Your task to perform on an android device: Go to settings Image 0: 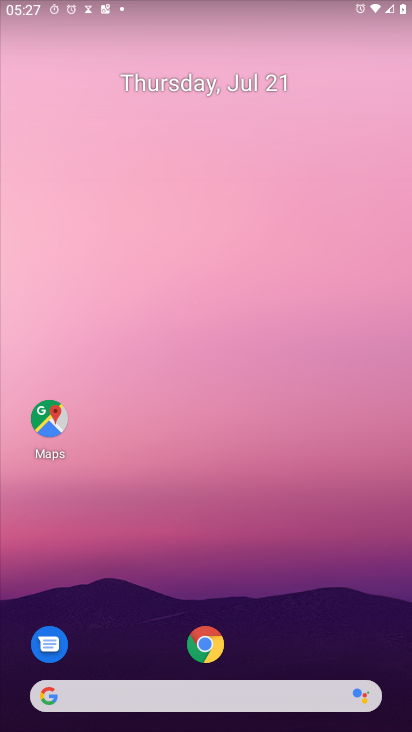
Step 0: press home button
Your task to perform on an android device: Go to settings Image 1: 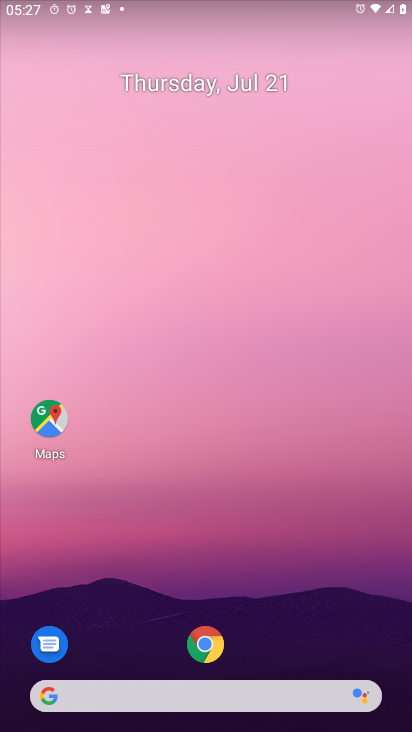
Step 1: drag from (296, 580) to (241, 5)
Your task to perform on an android device: Go to settings Image 2: 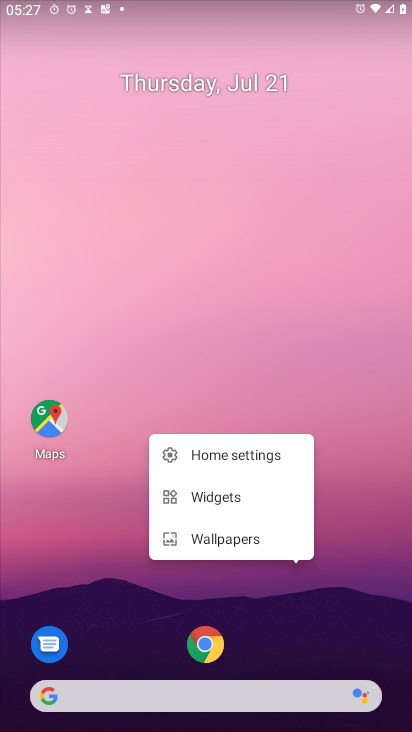
Step 2: drag from (349, 541) to (405, 338)
Your task to perform on an android device: Go to settings Image 3: 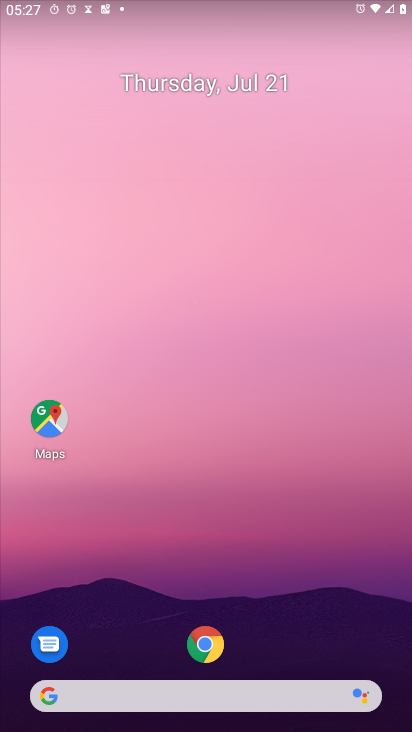
Step 3: drag from (246, 526) to (256, 729)
Your task to perform on an android device: Go to settings Image 4: 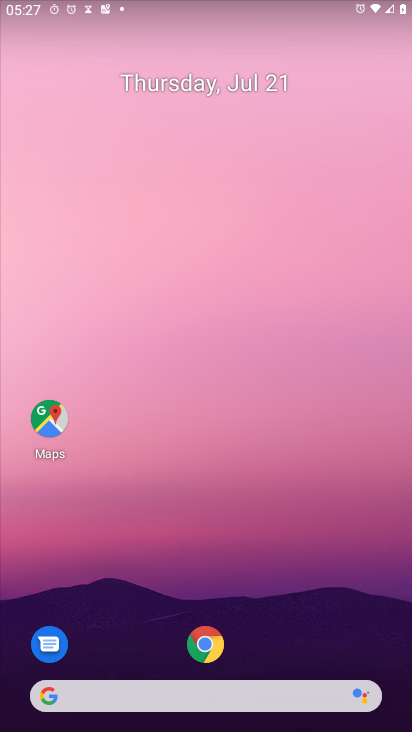
Step 4: drag from (235, 594) to (199, 28)
Your task to perform on an android device: Go to settings Image 5: 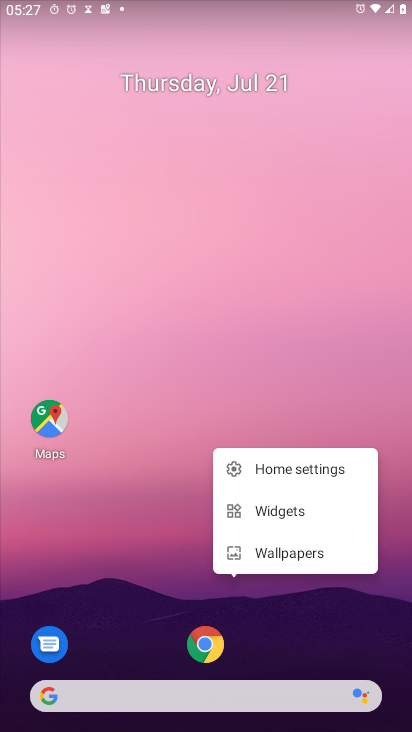
Step 5: drag from (161, 548) to (266, 8)
Your task to perform on an android device: Go to settings Image 6: 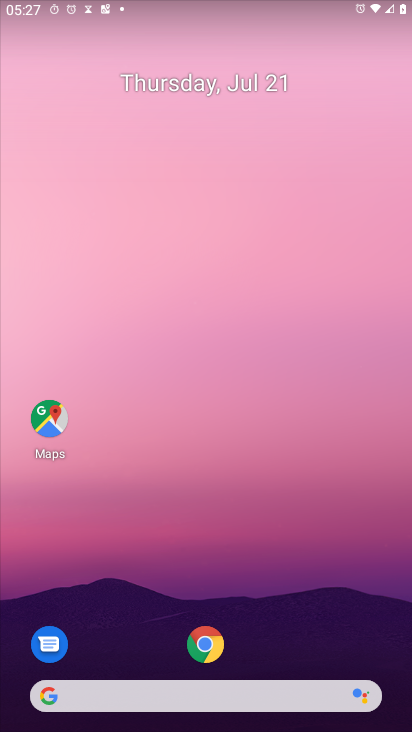
Step 6: drag from (256, 587) to (263, 75)
Your task to perform on an android device: Go to settings Image 7: 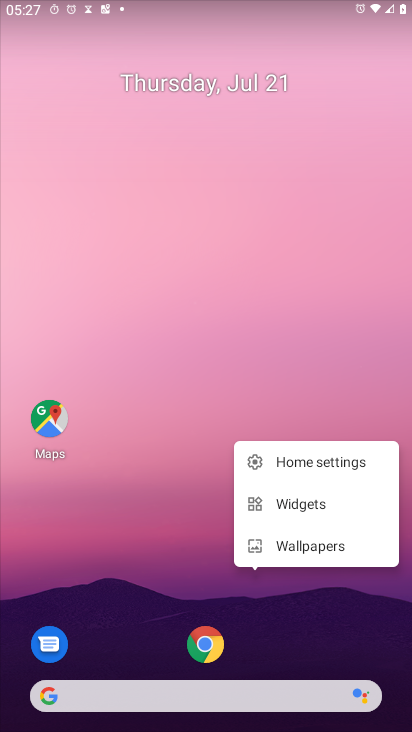
Step 7: press home button
Your task to perform on an android device: Go to settings Image 8: 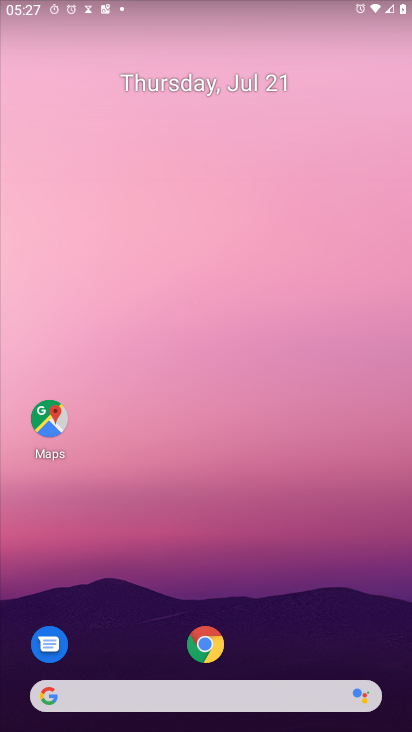
Step 8: drag from (300, 570) to (324, 9)
Your task to perform on an android device: Go to settings Image 9: 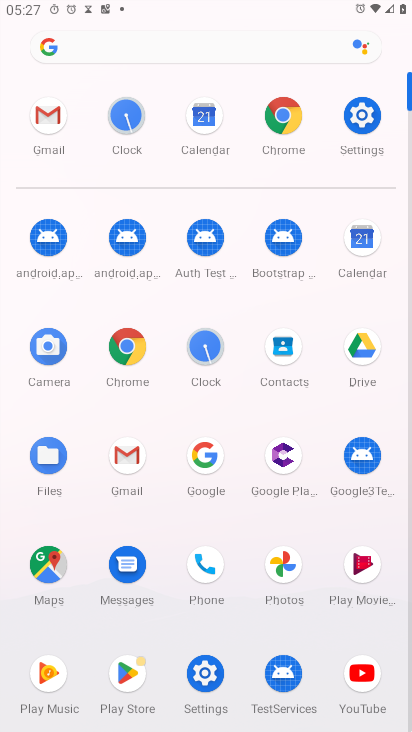
Step 9: drag from (253, 576) to (187, 66)
Your task to perform on an android device: Go to settings Image 10: 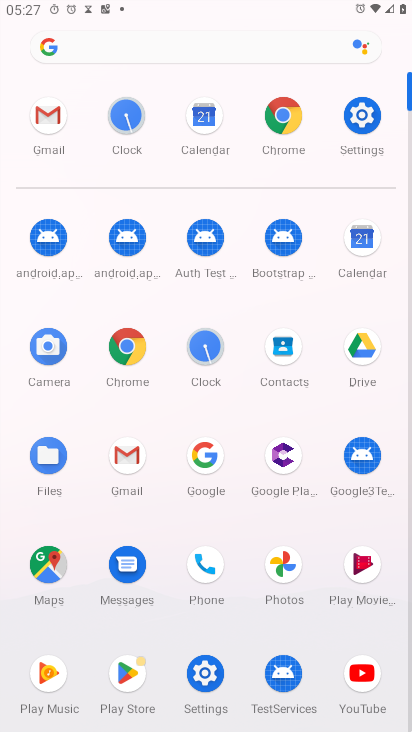
Step 10: click (359, 117)
Your task to perform on an android device: Go to settings Image 11: 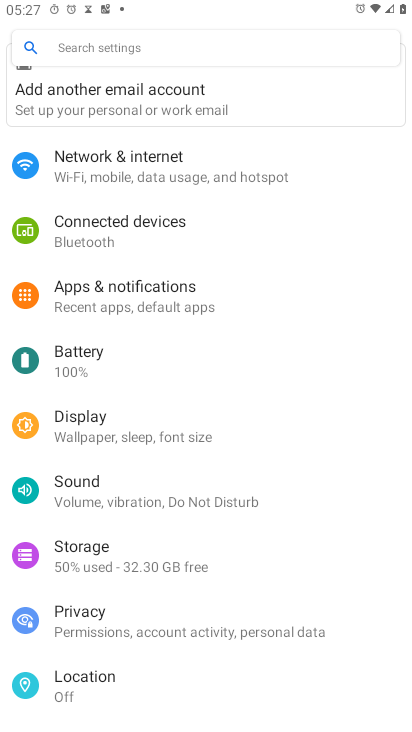
Step 11: task complete